Your task to perform on an android device: Go to location settings Image 0: 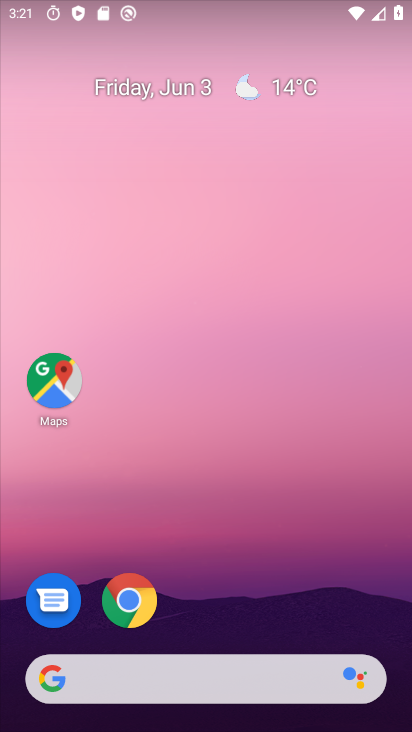
Step 0: drag from (236, 347) to (208, 21)
Your task to perform on an android device: Go to location settings Image 1: 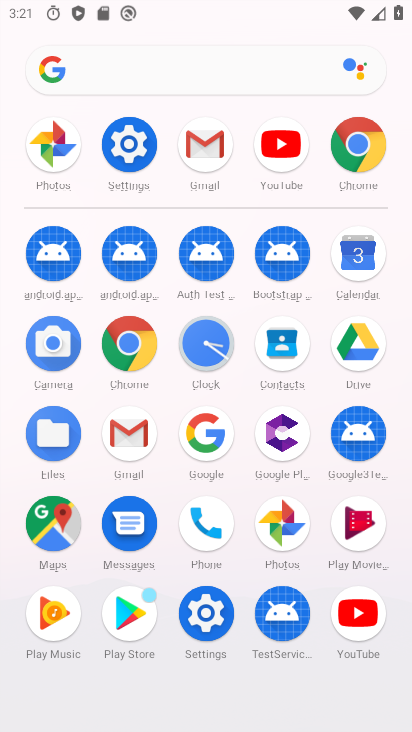
Step 1: click (206, 612)
Your task to perform on an android device: Go to location settings Image 2: 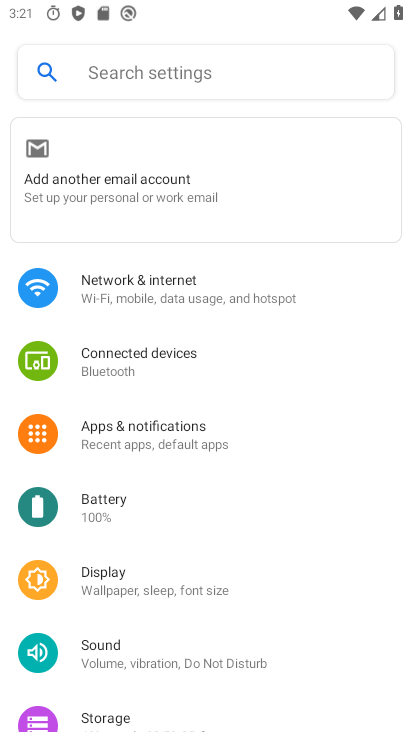
Step 2: drag from (276, 628) to (327, 220)
Your task to perform on an android device: Go to location settings Image 3: 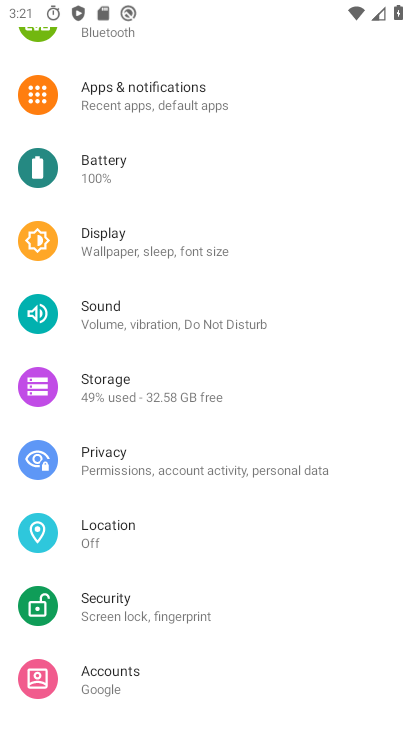
Step 3: click (137, 535)
Your task to perform on an android device: Go to location settings Image 4: 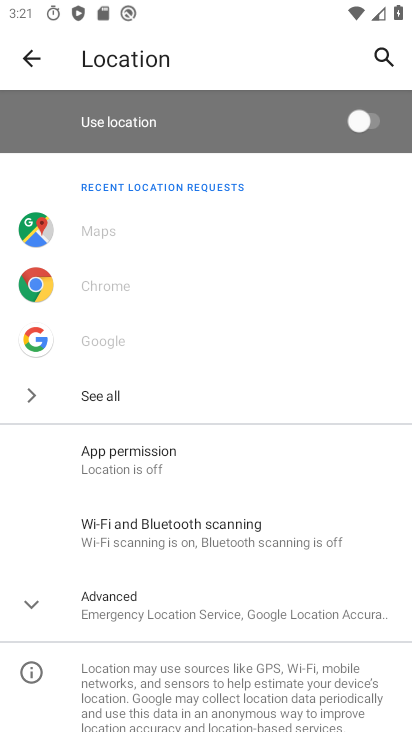
Step 4: drag from (263, 476) to (269, 93)
Your task to perform on an android device: Go to location settings Image 5: 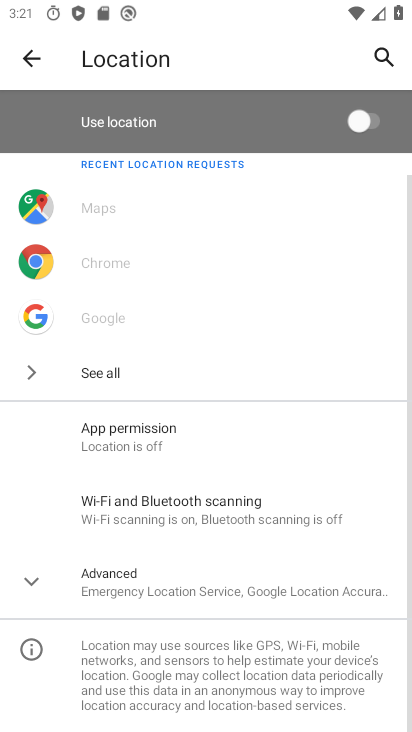
Step 5: click (27, 607)
Your task to perform on an android device: Go to location settings Image 6: 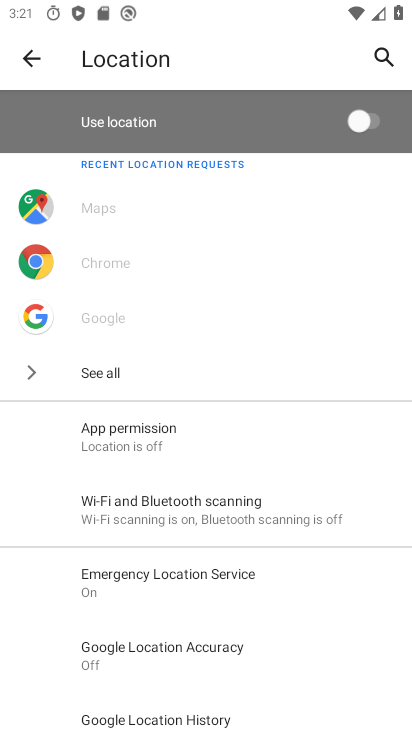
Step 6: task complete